Your task to perform on an android device: turn on javascript in the chrome app Image 0: 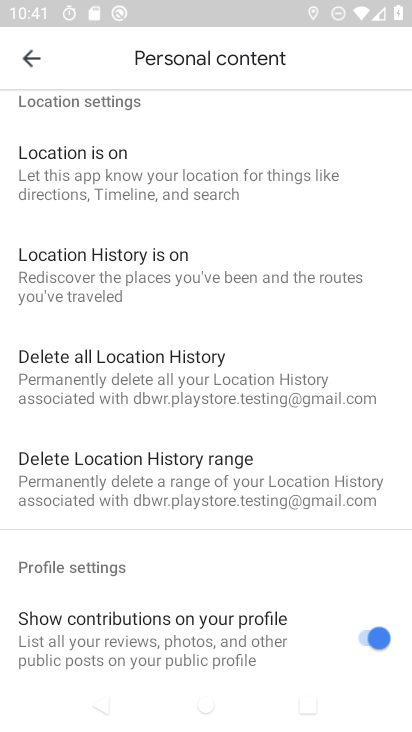
Step 0: press home button
Your task to perform on an android device: turn on javascript in the chrome app Image 1: 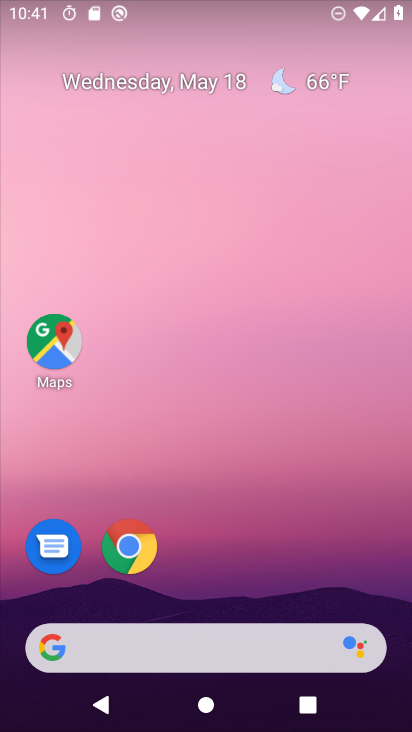
Step 1: click (132, 549)
Your task to perform on an android device: turn on javascript in the chrome app Image 2: 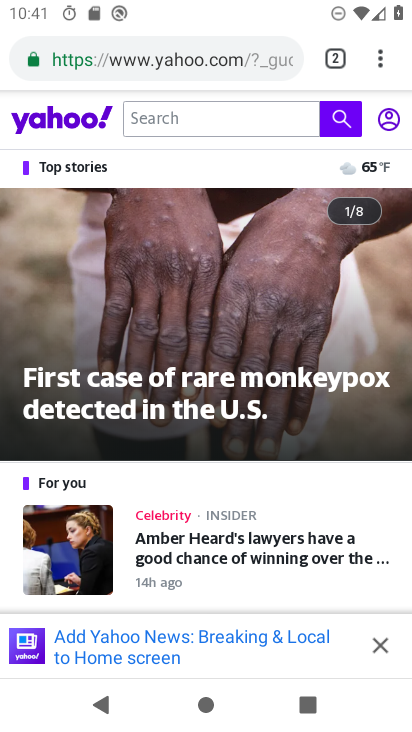
Step 2: click (395, 53)
Your task to perform on an android device: turn on javascript in the chrome app Image 3: 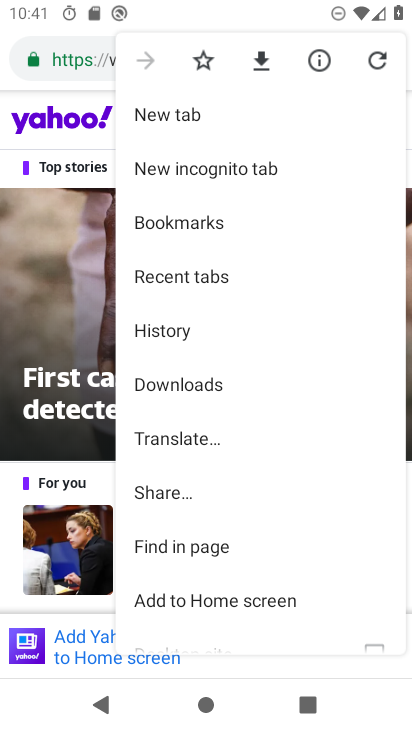
Step 3: drag from (253, 534) to (334, 216)
Your task to perform on an android device: turn on javascript in the chrome app Image 4: 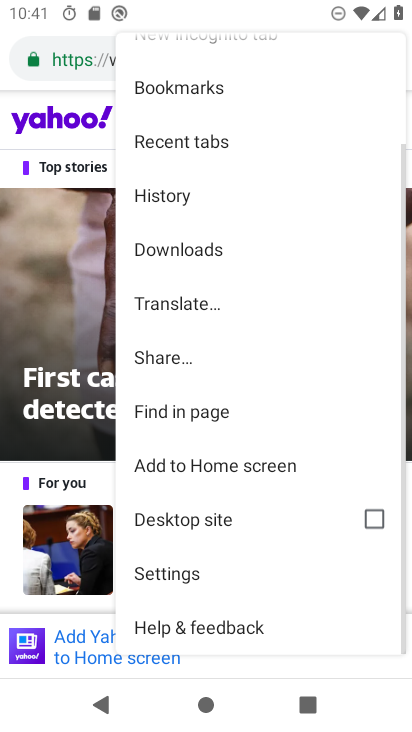
Step 4: click (202, 583)
Your task to perform on an android device: turn on javascript in the chrome app Image 5: 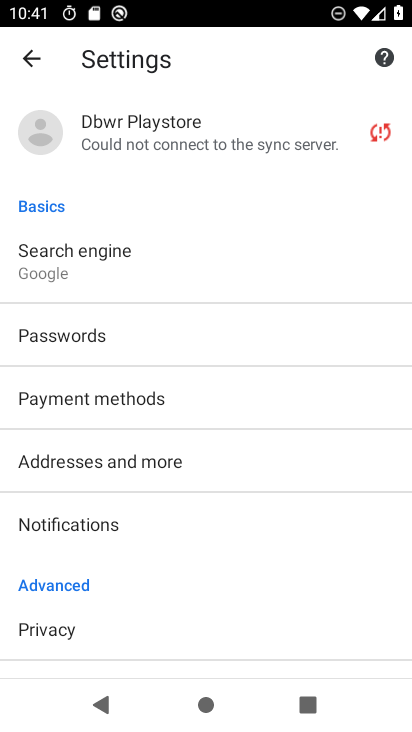
Step 5: drag from (122, 626) to (208, 254)
Your task to perform on an android device: turn on javascript in the chrome app Image 6: 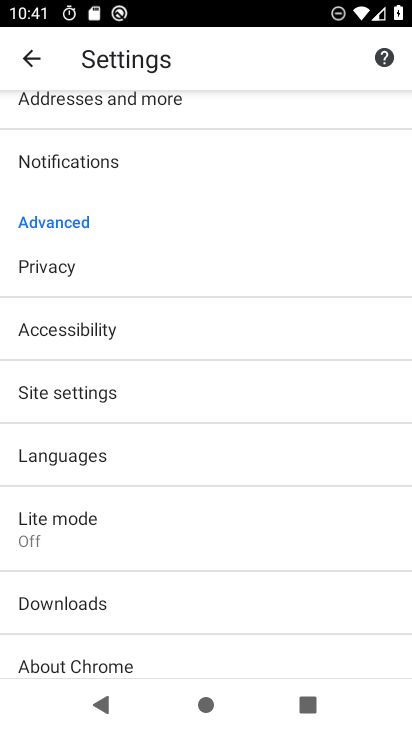
Step 6: click (124, 380)
Your task to perform on an android device: turn on javascript in the chrome app Image 7: 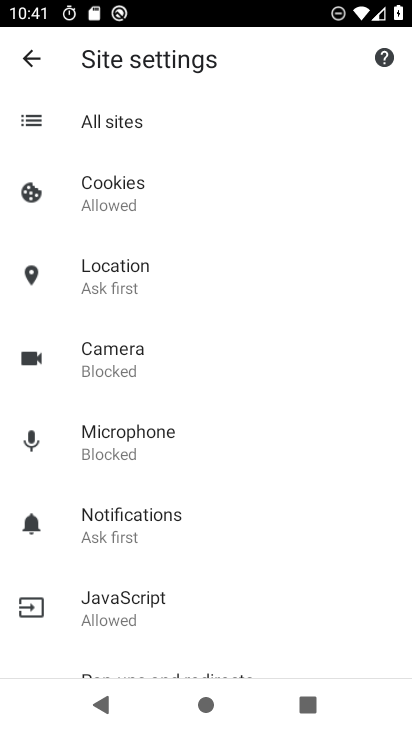
Step 7: click (165, 585)
Your task to perform on an android device: turn on javascript in the chrome app Image 8: 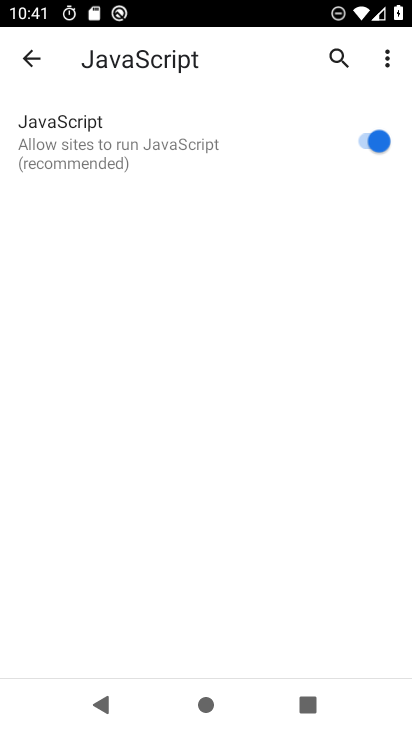
Step 8: task complete